Your task to perform on an android device: toggle location history Image 0: 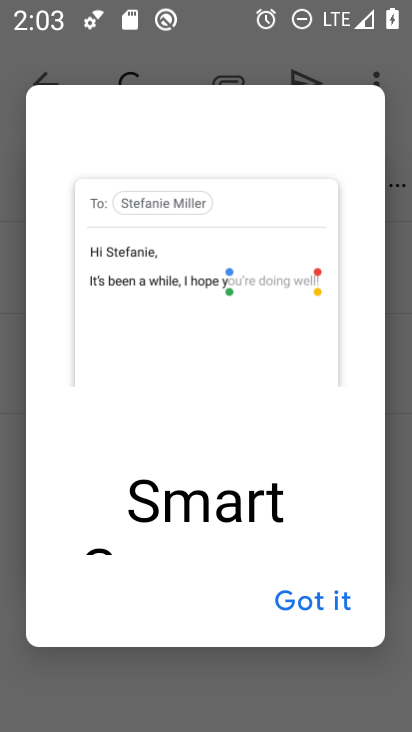
Step 0: press home button
Your task to perform on an android device: toggle location history Image 1: 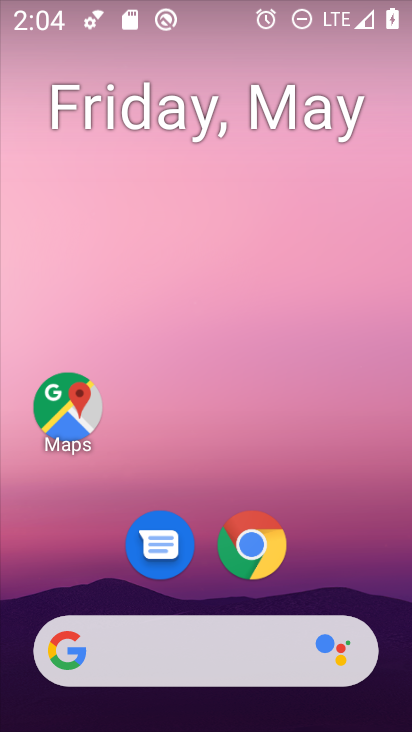
Step 1: drag from (301, 591) to (267, 312)
Your task to perform on an android device: toggle location history Image 2: 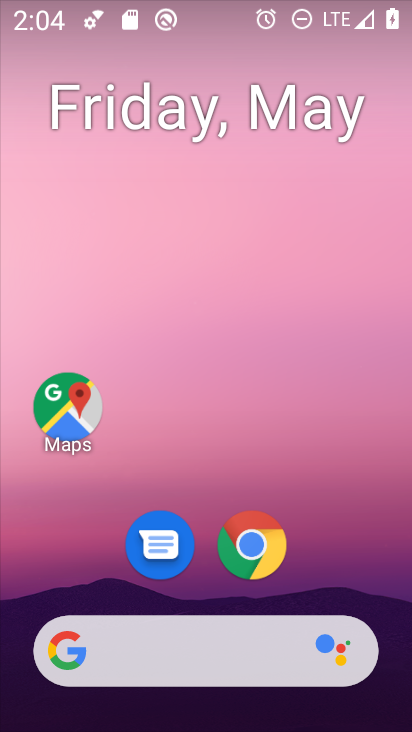
Step 2: drag from (348, 541) to (322, 230)
Your task to perform on an android device: toggle location history Image 3: 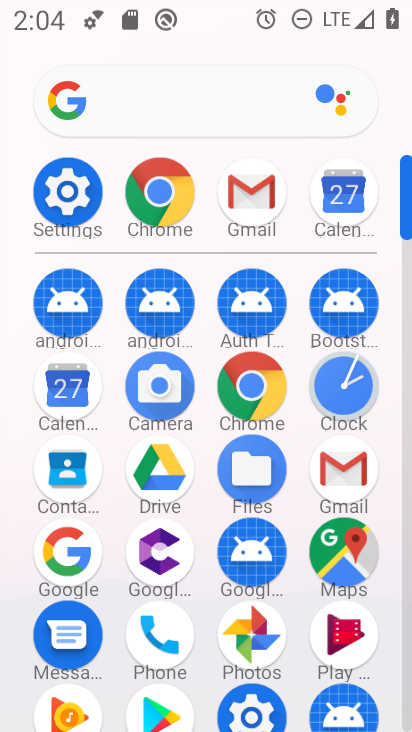
Step 3: click (66, 180)
Your task to perform on an android device: toggle location history Image 4: 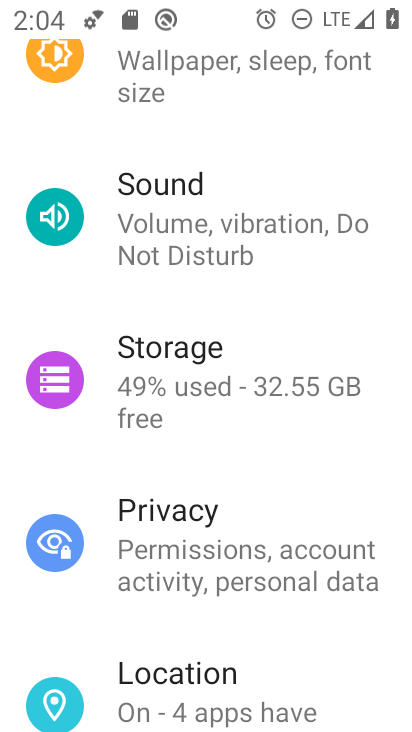
Step 4: click (211, 668)
Your task to perform on an android device: toggle location history Image 5: 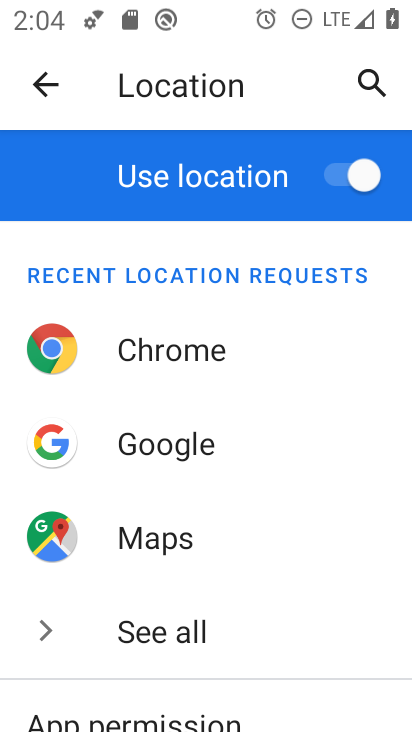
Step 5: drag from (265, 636) to (281, 223)
Your task to perform on an android device: toggle location history Image 6: 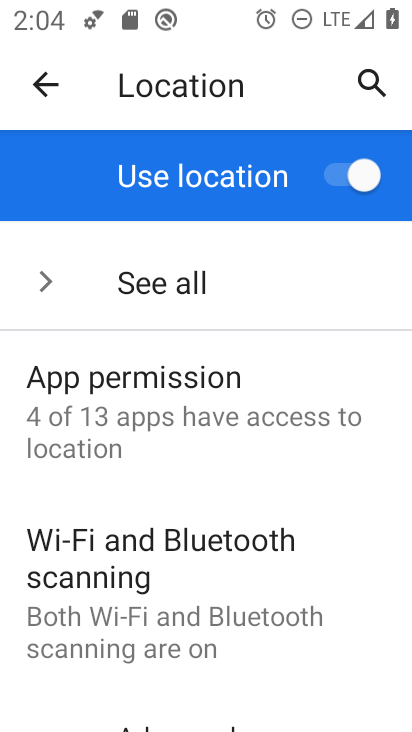
Step 6: drag from (233, 574) to (271, 202)
Your task to perform on an android device: toggle location history Image 7: 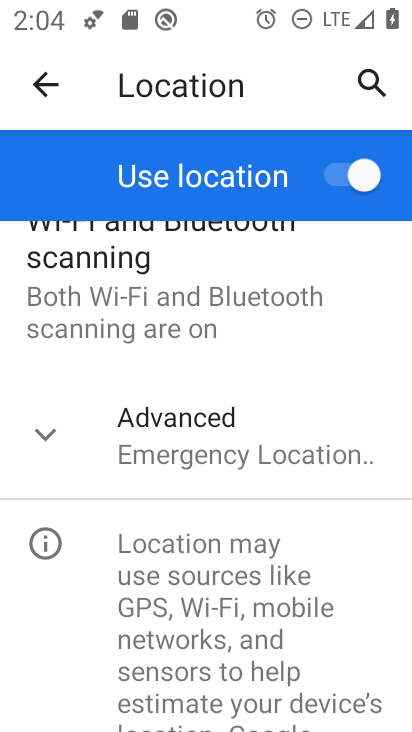
Step 7: drag from (220, 566) to (214, 496)
Your task to perform on an android device: toggle location history Image 8: 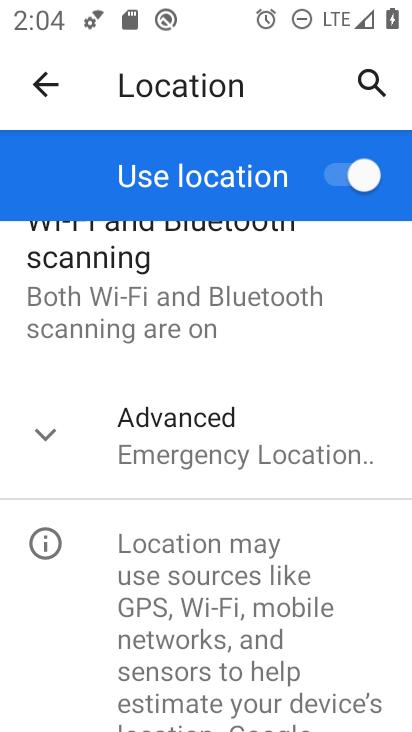
Step 8: click (210, 448)
Your task to perform on an android device: toggle location history Image 9: 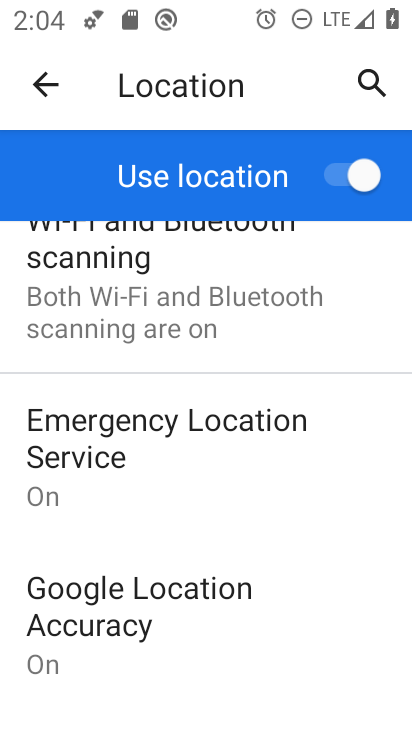
Step 9: drag from (228, 634) to (288, 352)
Your task to perform on an android device: toggle location history Image 10: 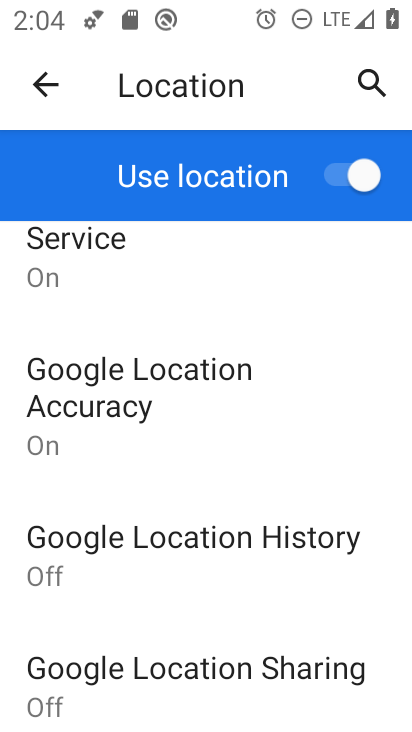
Step 10: click (225, 551)
Your task to perform on an android device: toggle location history Image 11: 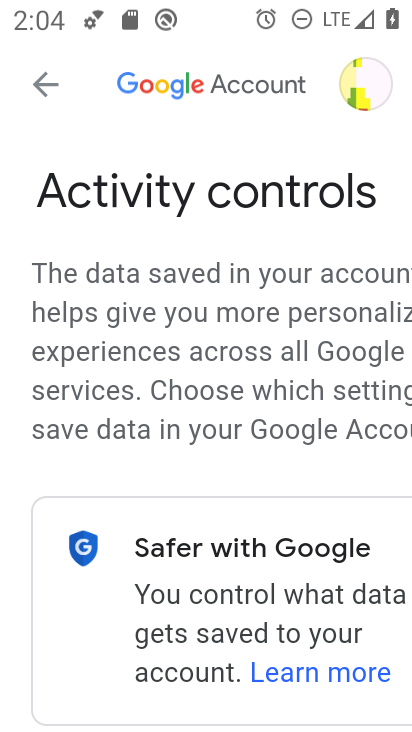
Step 11: drag from (134, 642) to (200, 262)
Your task to perform on an android device: toggle location history Image 12: 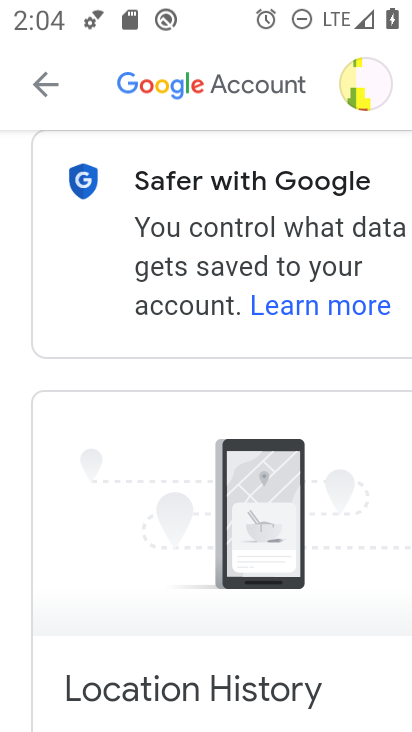
Step 12: drag from (157, 601) to (155, 321)
Your task to perform on an android device: toggle location history Image 13: 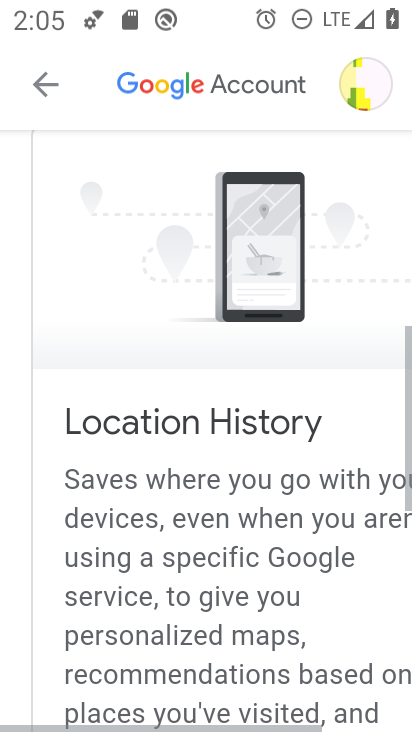
Step 13: drag from (109, 640) to (119, 323)
Your task to perform on an android device: toggle location history Image 14: 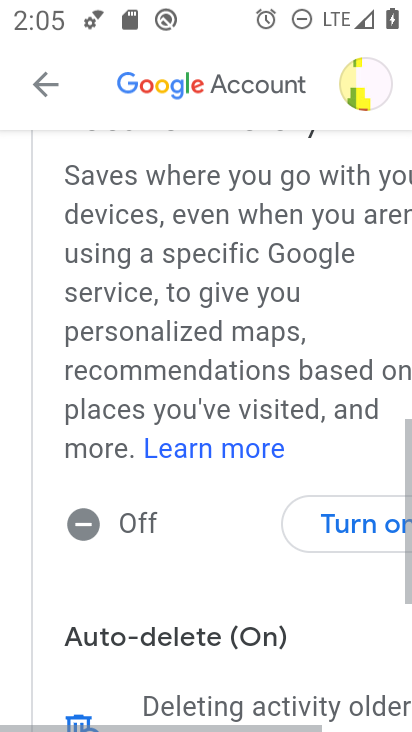
Step 14: drag from (142, 467) to (150, 349)
Your task to perform on an android device: toggle location history Image 15: 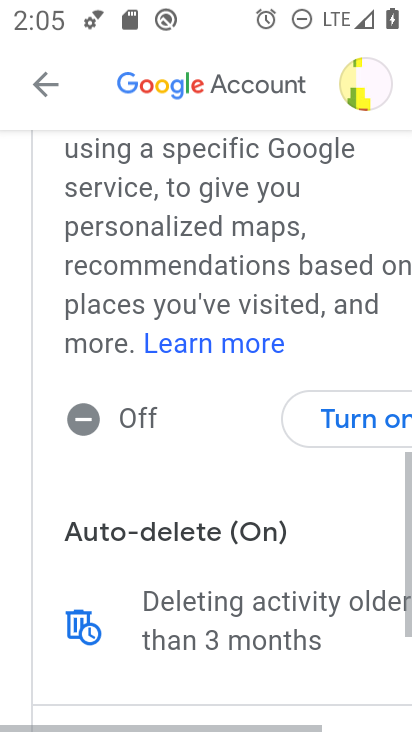
Step 15: drag from (164, 520) to (186, 368)
Your task to perform on an android device: toggle location history Image 16: 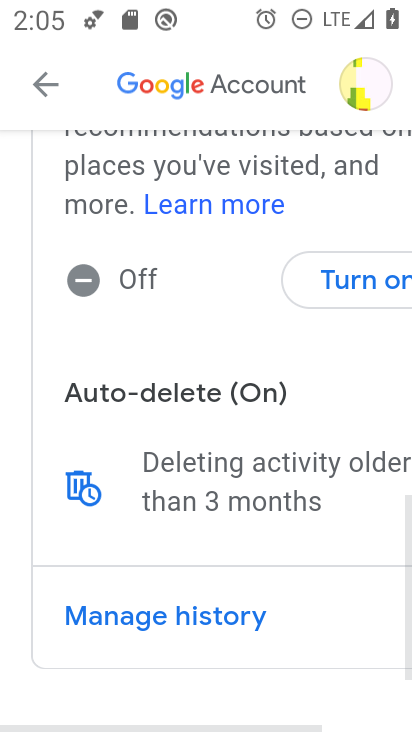
Step 16: click (350, 421)
Your task to perform on an android device: toggle location history Image 17: 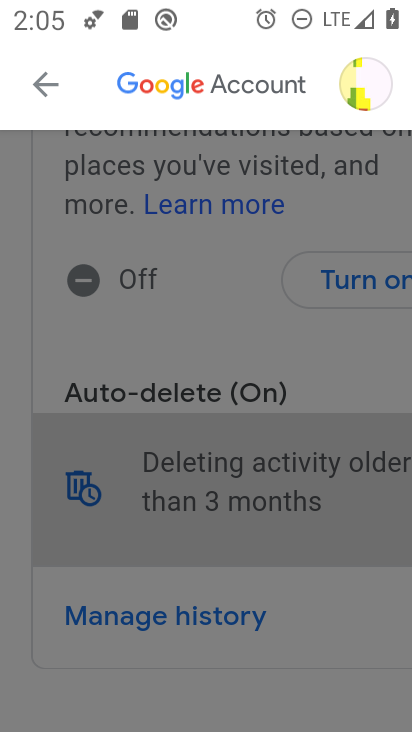
Step 17: click (340, 276)
Your task to perform on an android device: toggle location history Image 18: 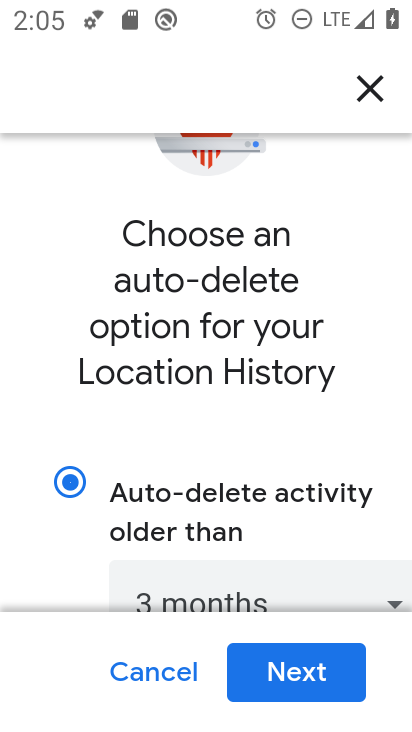
Step 18: click (166, 667)
Your task to perform on an android device: toggle location history Image 19: 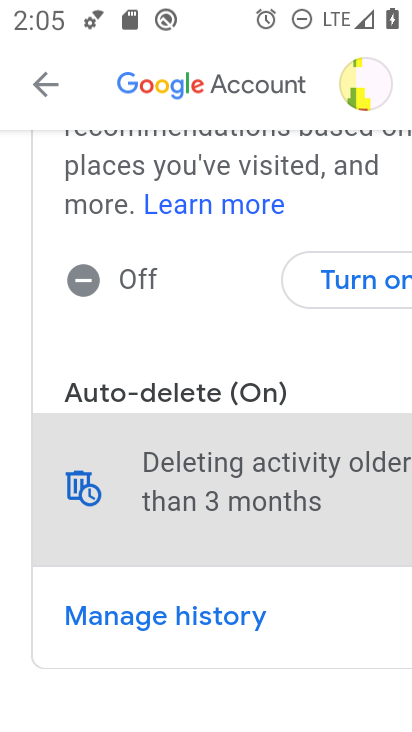
Step 19: click (348, 277)
Your task to perform on an android device: toggle location history Image 20: 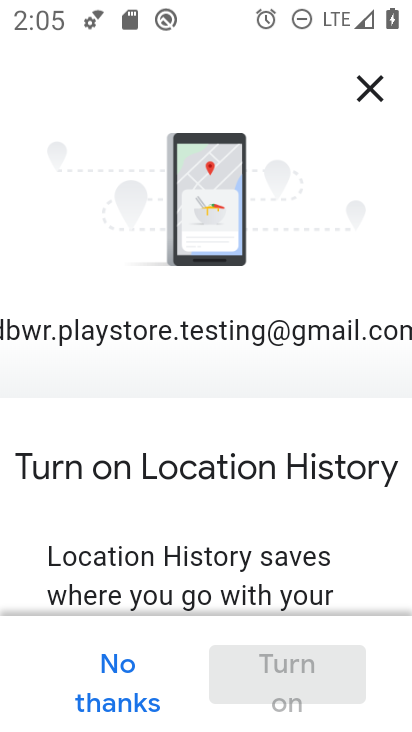
Step 20: task complete